Your task to perform on an android device: turn off picture-in-picture Image 0: 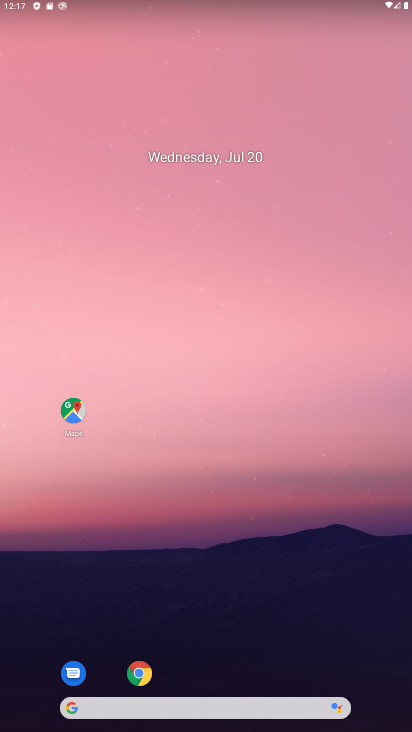
Step 0: drag from (181, 535) to (167, 278)
Your task to perform on an android device: turn off picture-in-picture Image 1: 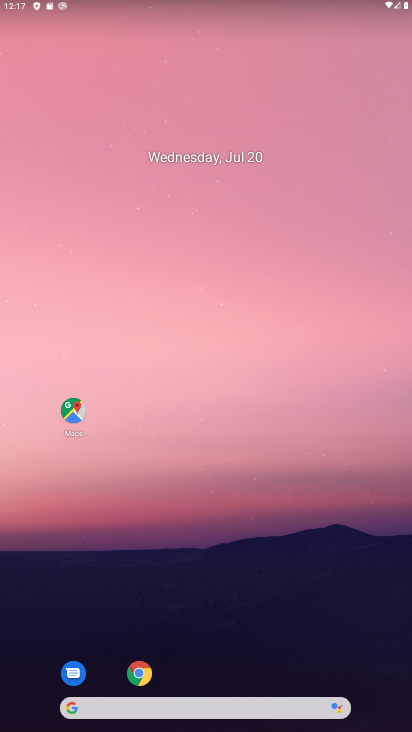
Step 1: drag from (168, 503) to (157, 196)
Your task to perform on an android device: turn off picture-in-picture Image 2: 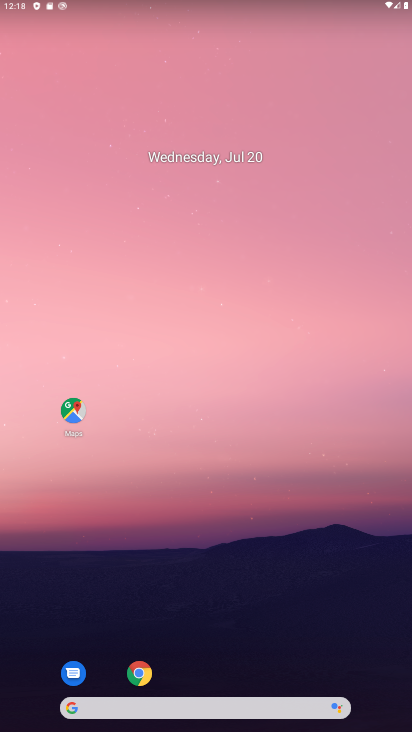
Step 2: drag from (211, 468) to (189, 262)
Your task to perform on an android device: turn off picture-in-picture Image 3: 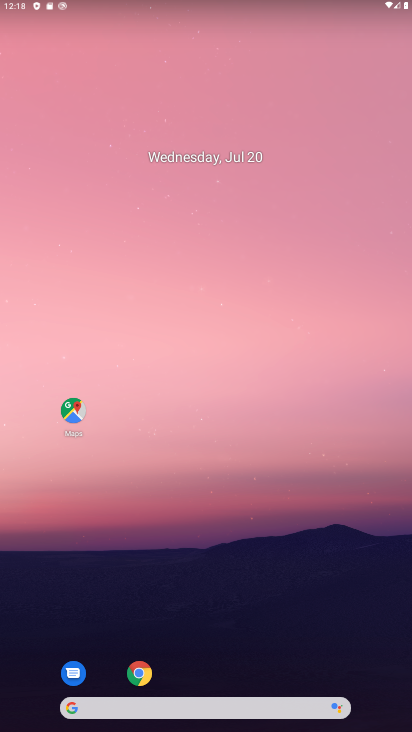
Step 3: click (141, 672)
Your task to perform on an android device: turn off picture-in-picture Image 4: 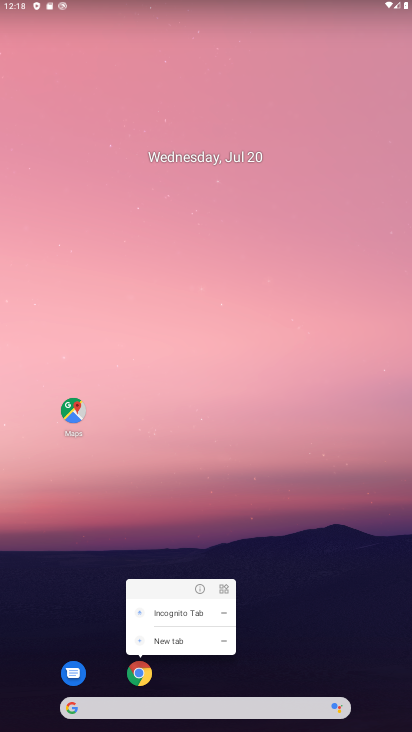
Step 4: click (198, 589)
Your task to perform on an android device: turn off picture-in-picture Image 5: 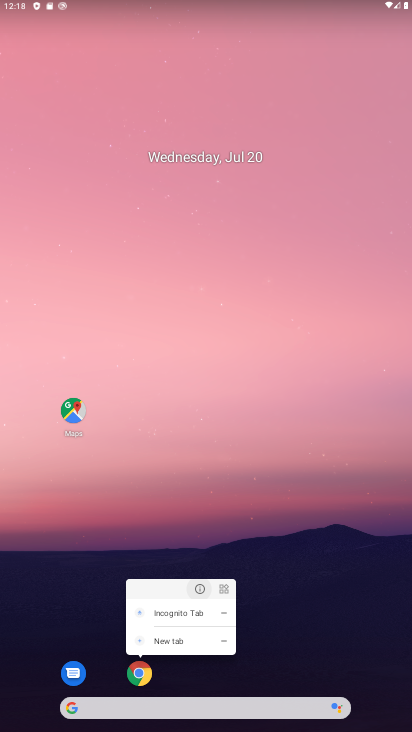
Step 5: click (200, 590)
Your task to perform on an android device: turn off picture-in-picture Image 6: 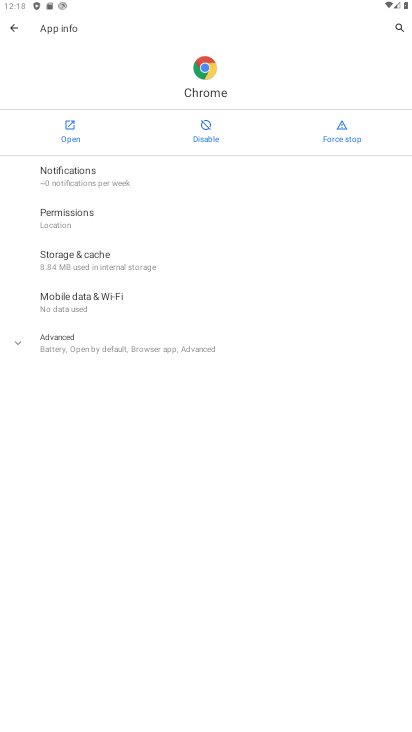
Step 6: click (43, 347)
Your task to perform on an android device: turn off picture-in-picture Image 7: 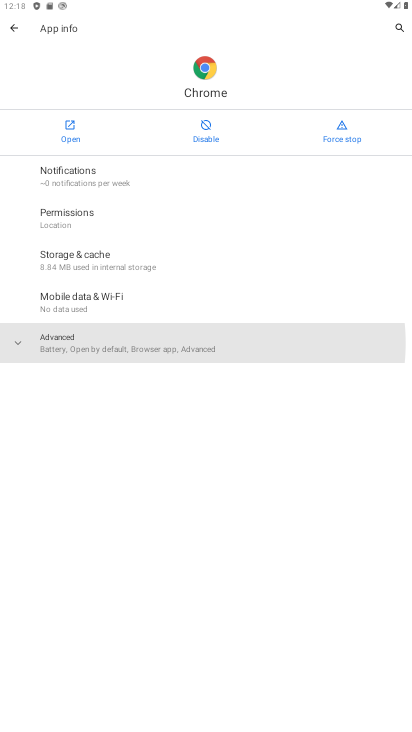
Step 7: click (43, 347)
Your task to perform on an android device: turn off picture-in-picture Image 8: 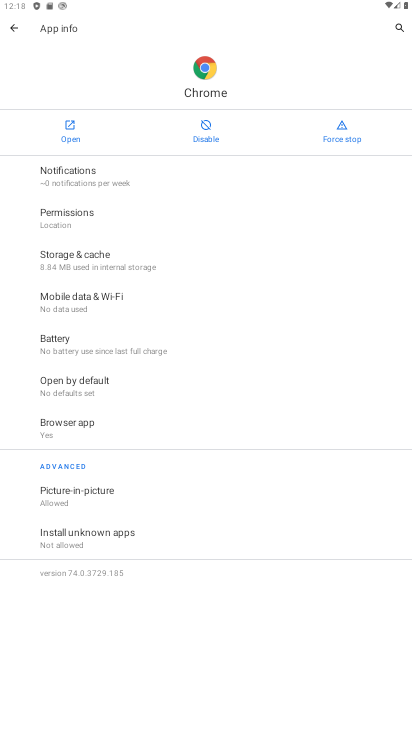
Step 8: click (53, 502)
Your task to perform on an android device: turn off picture-in-picture Image 9: 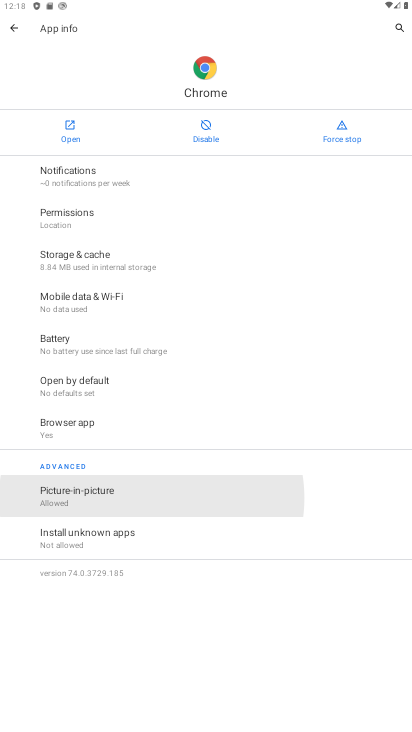
Step 9: click (51, 496)
Your task to perform on an android device: turn off picture-in-picture Image 10: 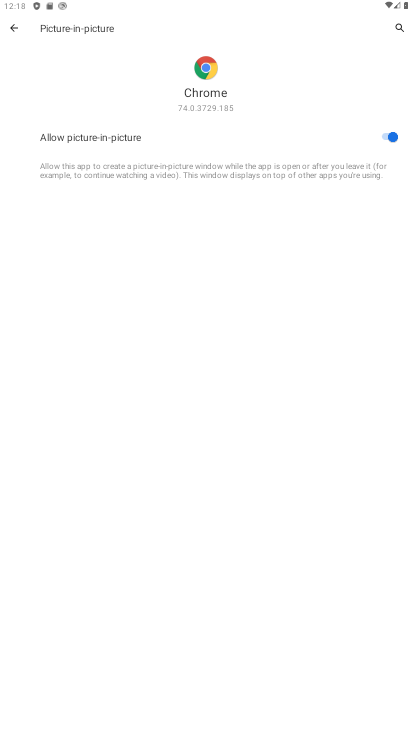
Step 10: click (390, 142)
Your task to perform on an android device: turn off picture-in-picture Image 11: 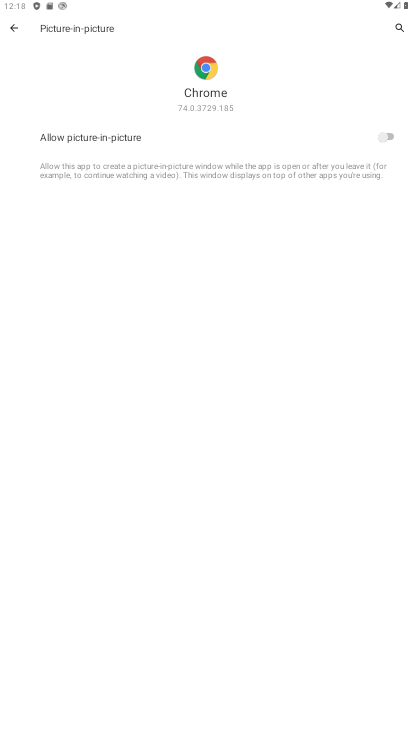
Step 11: task complete